Your task to perform on an android device: turn on data saver in the chrome app Image 0: 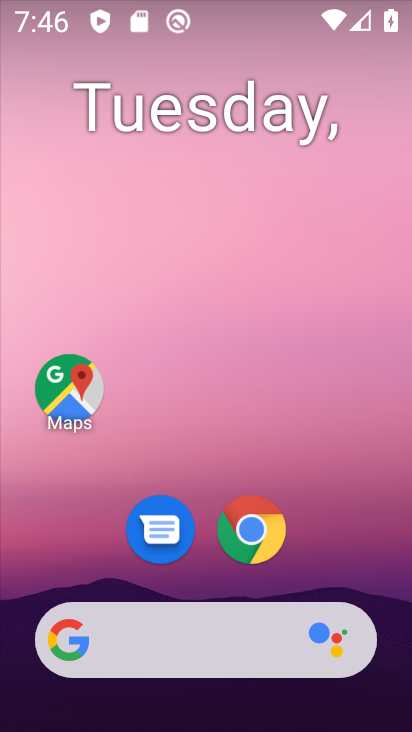
Step 0: drag from (193, 561) to (285, 45)
Your task to perform on an android device: turn on data saver in the chrome app Image 1: 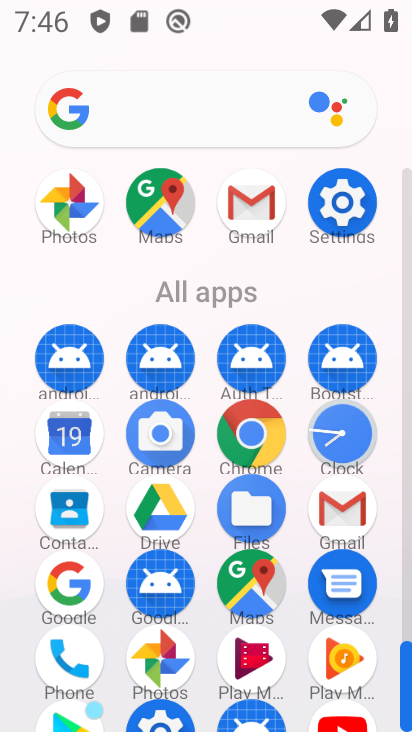
Step 1: click (264, 429)
Your task to perform on an android device: turn on data saver in the chrome app Image 2: 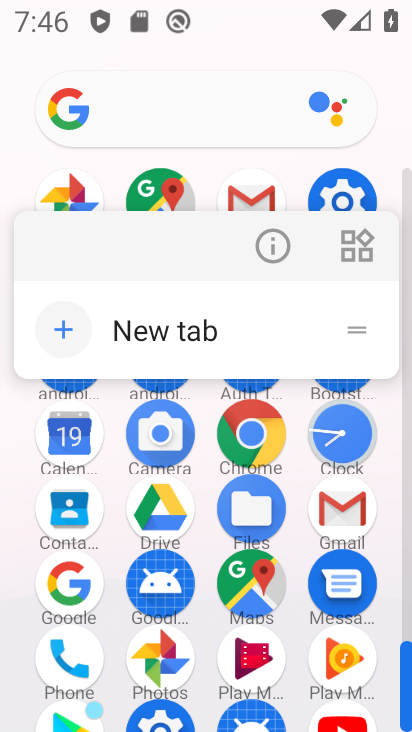
Step 2: click (266, 428)
Your task to perform on an android device: turn on data saver in the chrome app Image 3: 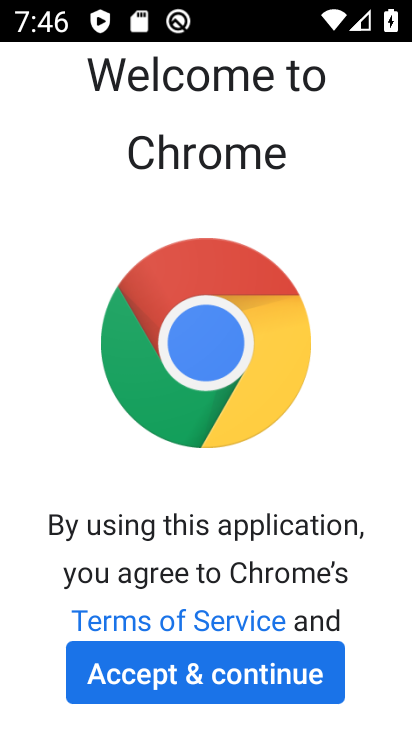
Step 3: click (261, 665)
Your task to perform on an android device: turn on data saver in the chrome app Image 4: 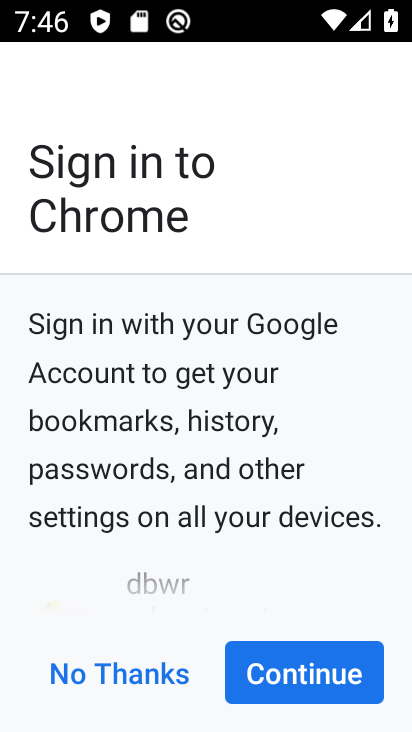
Step 4: click (308, 674)
Your task to perform on an android device: turn on data saver in the chrome app Image 5: 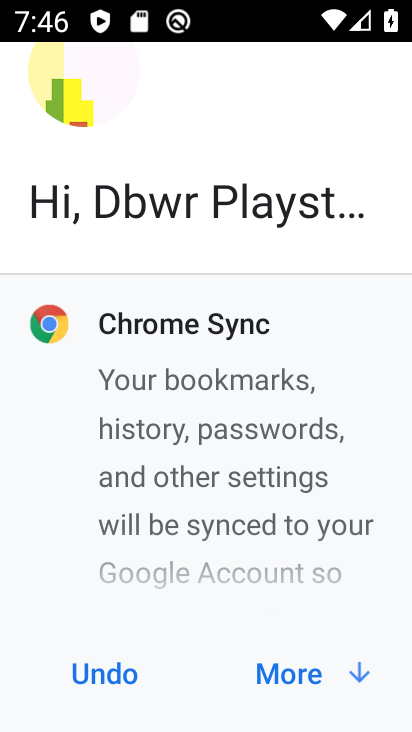
Step 5: click (309, 674)
Your task to perform on an android device: turn on data saver in the chrome app Image 6: 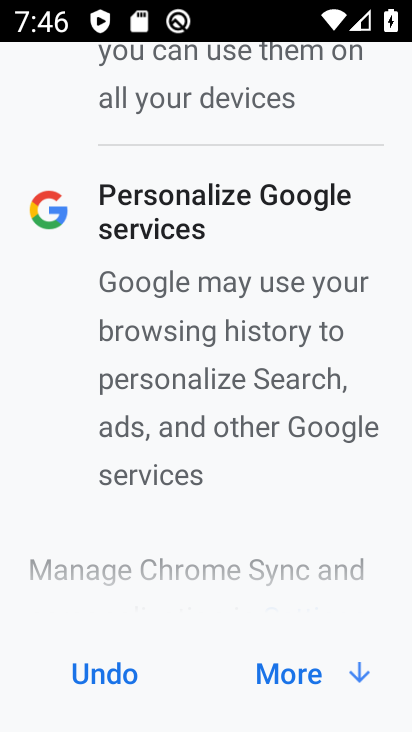
Step 6: click (309, 674)
Your task to perform on an android device: turn on data saver in the chrome app Image 7: 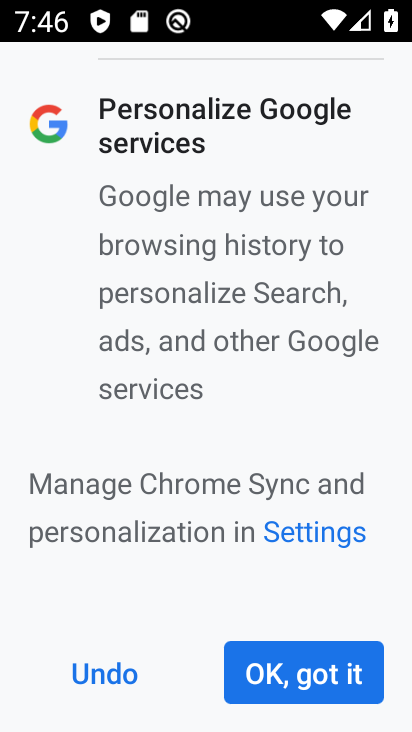
Step 7: click (309, 674)
Your task to perform on an android device: turn on data saver in the chrome app Image 8: 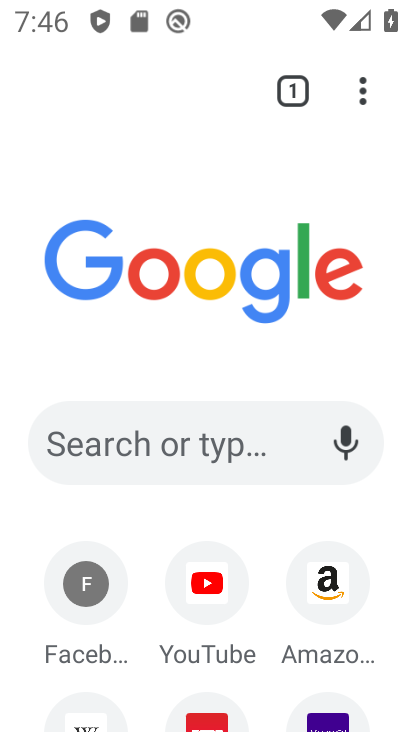
Step 8: click (366, 96)
Your task to perform on an android device: turn on data saver in the chrome app Image 9: 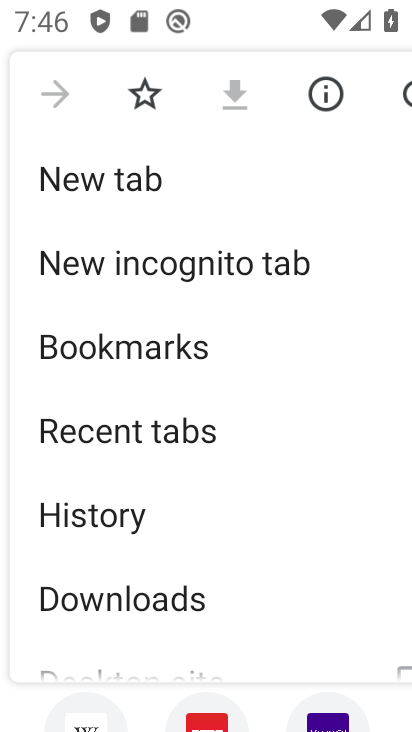
Step 9: drag from (152, 589) to (222, 108)
Your task to perform on an android device: turn on data saver in the chrome app Image 10: 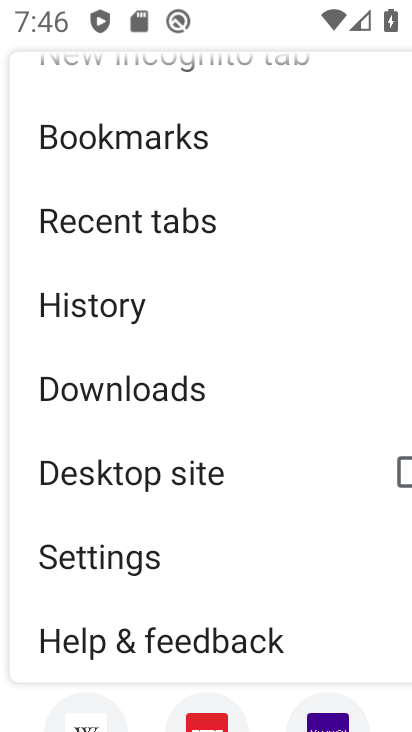
Step 10: click (129, 553)
Your task to perform on an android device: turn on data saver in the chrome app Image 11: 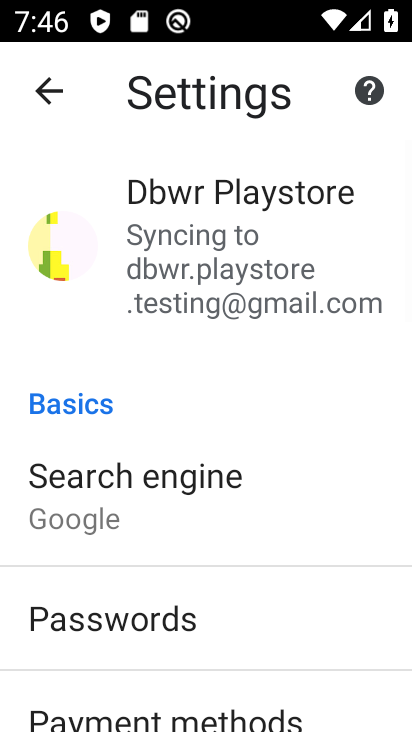
Step 11: drag from (137, 586) to (215, 192)
Your task to perform on an android device: turn on data saver in the chrome app Image 12: 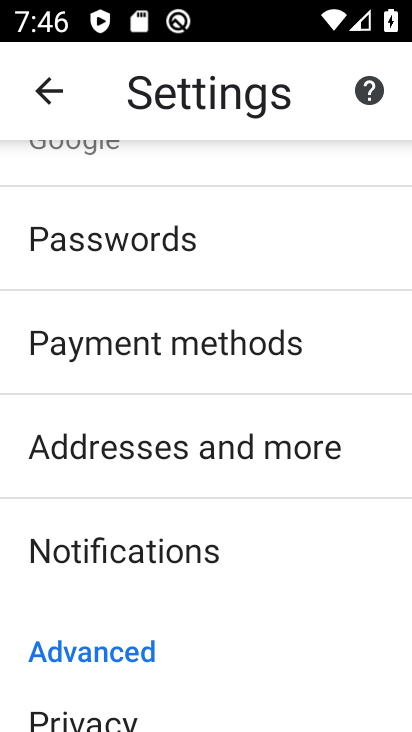
Step 12: drag from (149, 567) to (194, 193)
Your task to perform on an android device: turn on data saver in the chrome app Image 13: 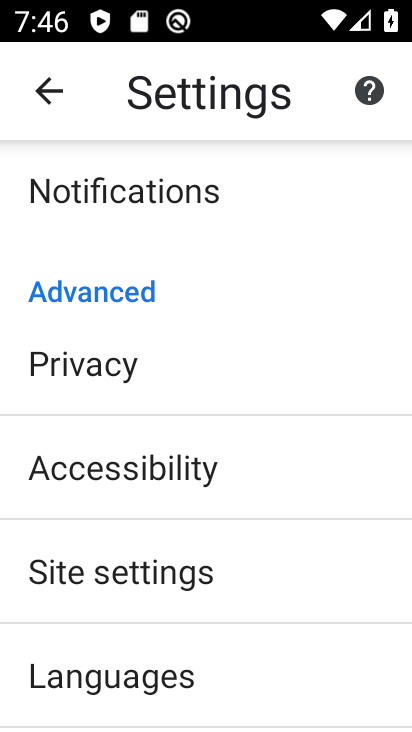
Step 13: drag from (156, 595) to (249, 79)
Your task to perform on an android device: turn on data saver in the chrome app Image 14: 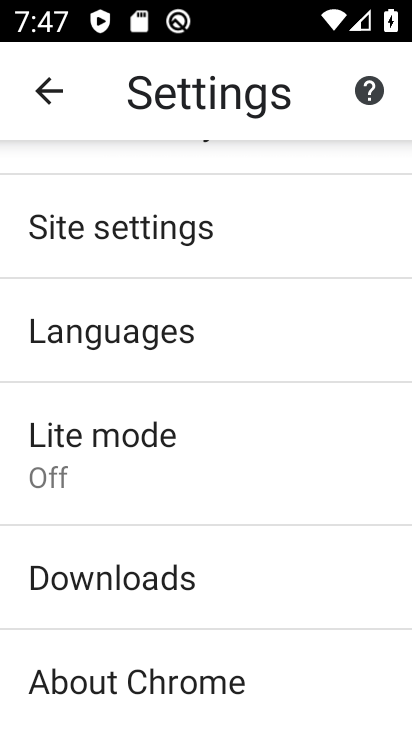
Step 14: click (123, 437)
Your task to perform on an android device: turn on data saver in the chrome app Image 15: 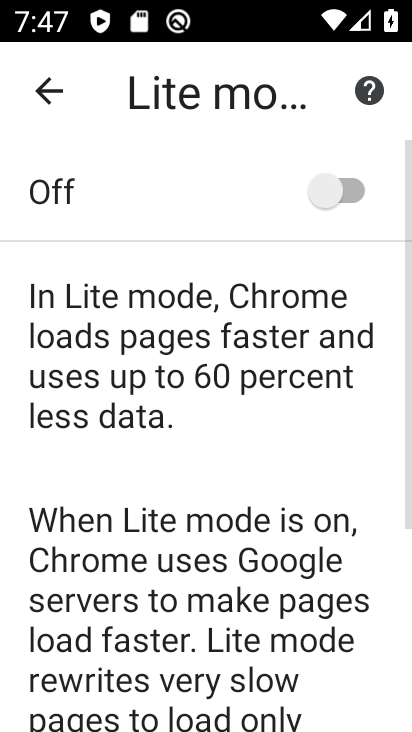
Step 15: click (349, 191)
Your task to perform on an android device: turn on data saver in the chrome app Image 16: 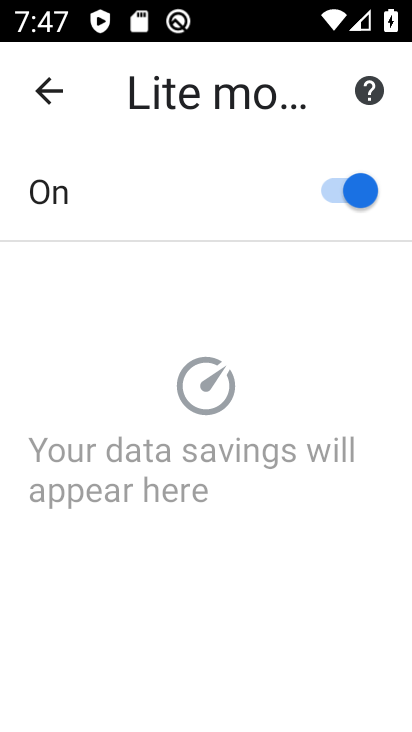
Step 16: task complete